Your task to perform on an android device: Search for "dell xps" on target, select the first entry, and add it to the cart. Image 0: 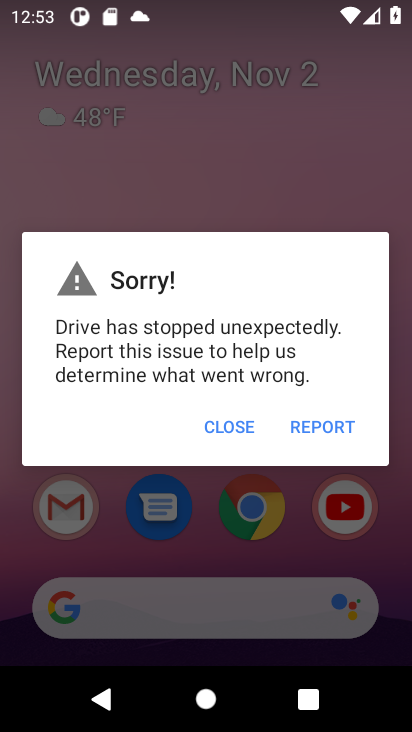
Step 0: click (252, 425)
Your task to perform on an android device: Search for "dell xps" on target, select the first entry, and add it to the cart. Image 1: 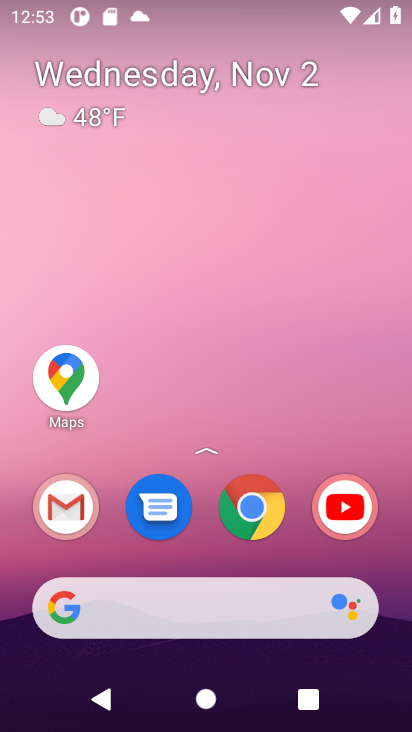
Step 1: click (154, 613)
Your task to perform on an android device: Search for "dell xps" on target, select the first entry, and add it to the cart. Image 2: 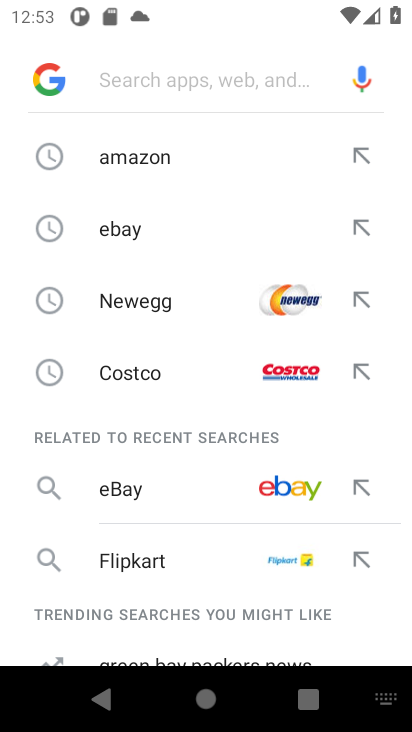
Step 2: type "target"
Your task to perform on an android device: Search for "dell xps" on target, select the first entry, and add it to the cart. Image 3: 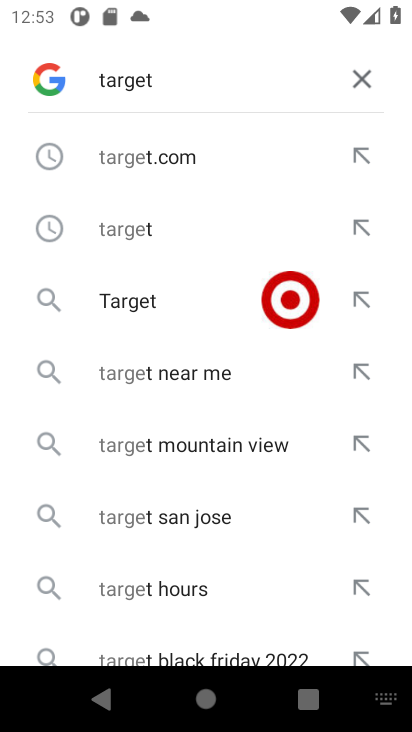
Step 3: type ""
Your task to perform on an android device: Search for "dell xps" on target, select the first entry, and add it to the cart. Image 4: 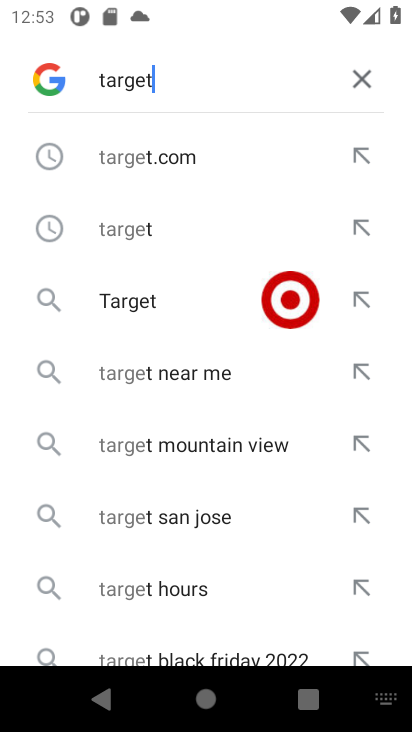
Step 4: click (209, 147)
Your task to perform on an android device: Search for "dell xps" on target, select the first entry, and add it to the cart. Image 5: 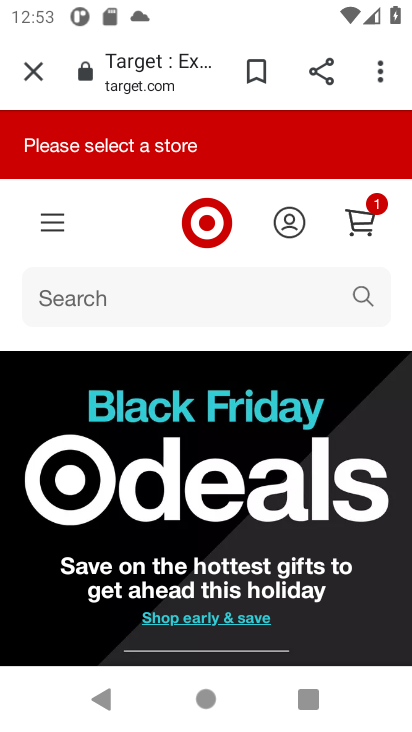
Step 5: click (181, 288)
Your task to perform on an android device: Search for "dell xps" on target, select the first entry, and add it to the cart. Image 6: 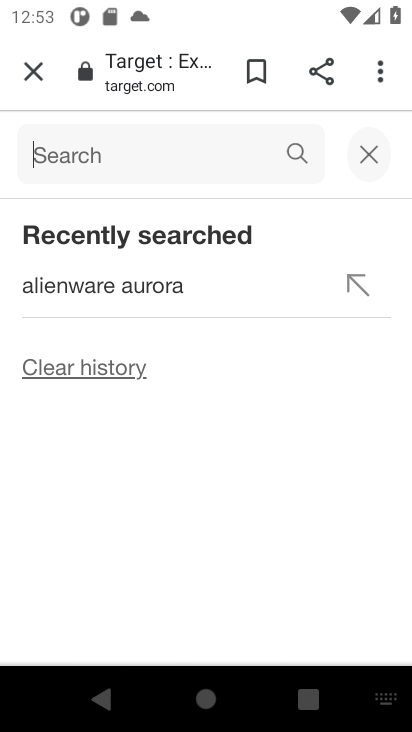
Step 6: type "dell xps"
Your task to perform on an android device: Search for "dell xps" on target, select the first entry, and add it to the cart. Image 7: 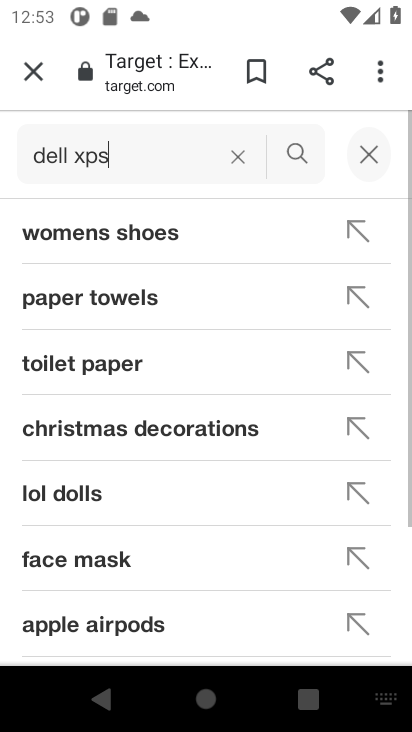
Step 7: type ""
Your task to perform on an android device: Search for "dell xps" on target, select the first entry, and add it to the cart. Image 8: 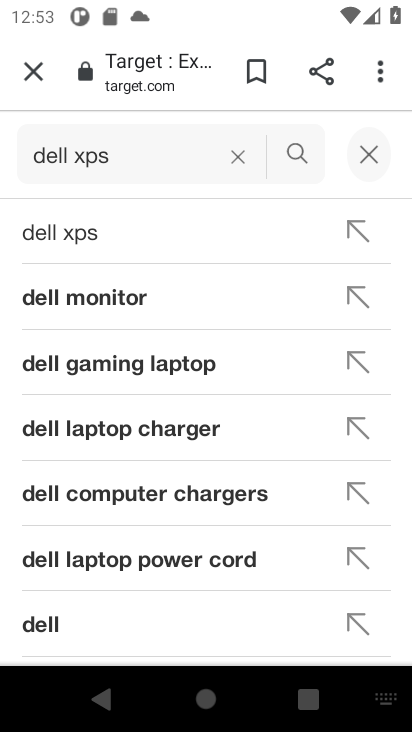
Step 8: click (126, 239)
Your task to perform on an android device: Search for "dell xps" on target, select the first entry, and add it to the cart. Image 9: 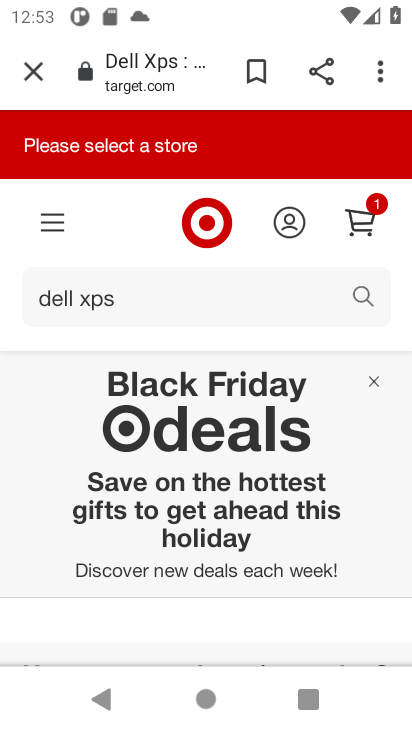
Step 9: drag from (284, 527) to (243, 219)
Your task to perform on an android device: Search for "dell xps" on target, select the first entry, and add it to the cart. Image 10: 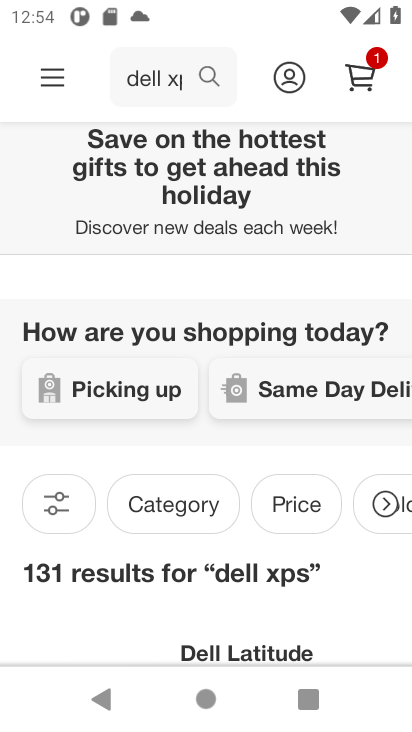
Step 10: drag from (236, 233) to (227, 511)
Your task to perform on an android device: Search for "dell xps" on target, select the first entry, and add it to the cart. Image 11: 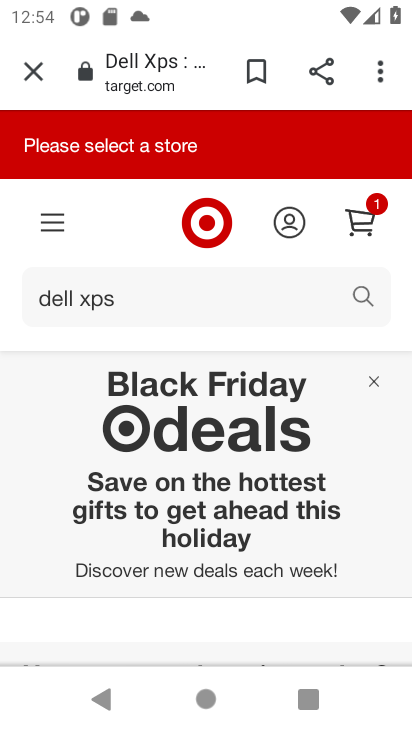
Step 11: click (359, 215)
Your task to perform on an android device: Search for "dell xps" on target, select the first entry, and add it to the cart. Image 12: 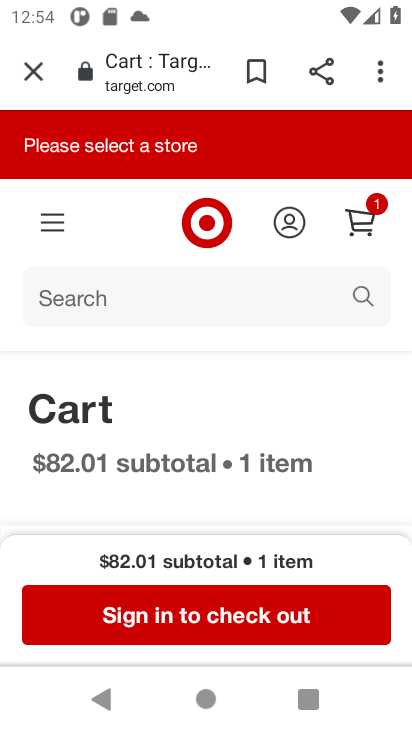
Step 12: task complete